Your task to perform on an android device: Go to eBay Image 0: 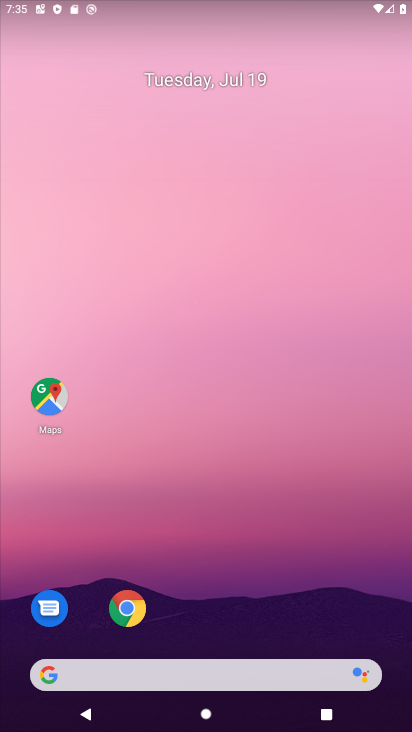
Step 0: click (126, 609)
Your task to perform on an android device: Go to eBay Image 1: 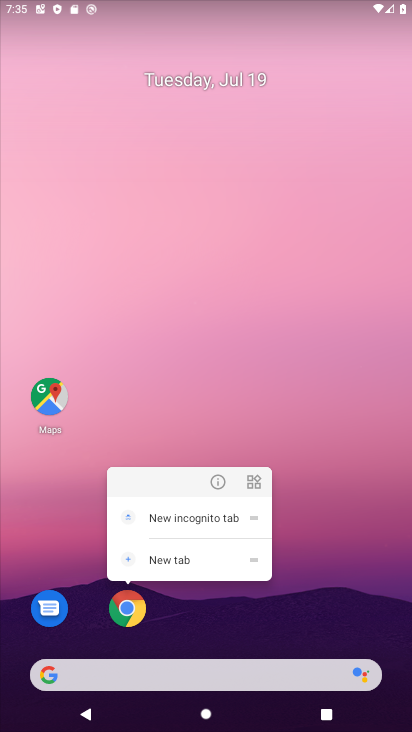
Step 1: click (124, 619)
Your task to perform on an android device: Go to eBay Image 2: 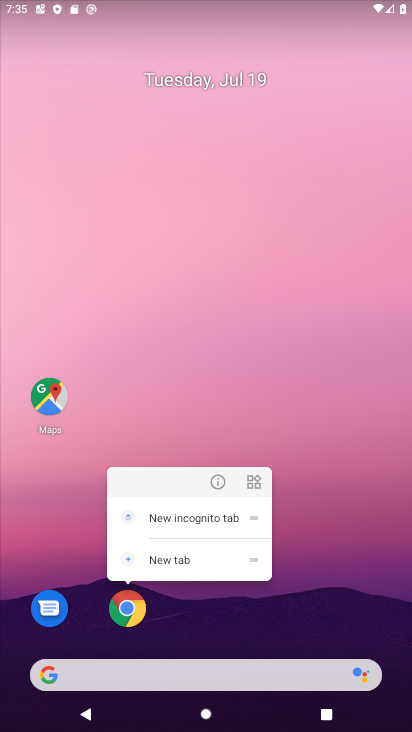
Step 2: click (127, 615)
Your task to perform on an android device: Go to eBay Image 3: 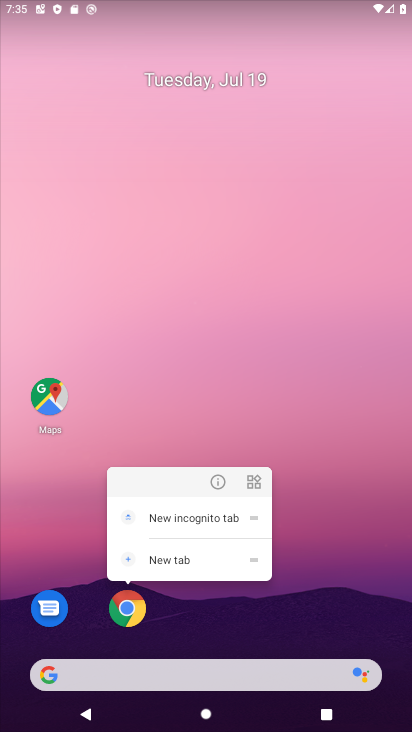
Step 3: click (127, 615)
Your task to perform on an android device: Go to eBay Image 4: 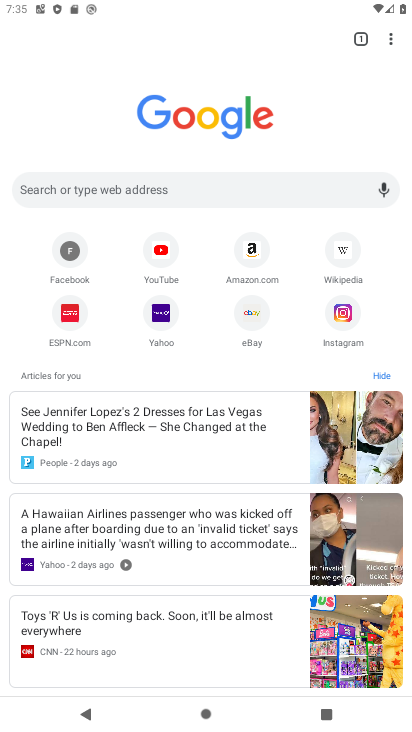
Step 4: click (247, 311)
Your task to perform on an android device: Go to eBay Image 5: 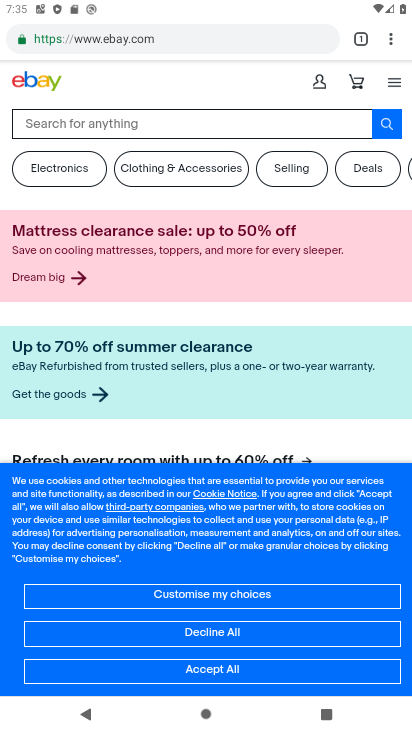
Step 5: click (215, 664)
Your task to perform on an android device: Go to eBay Image 6: 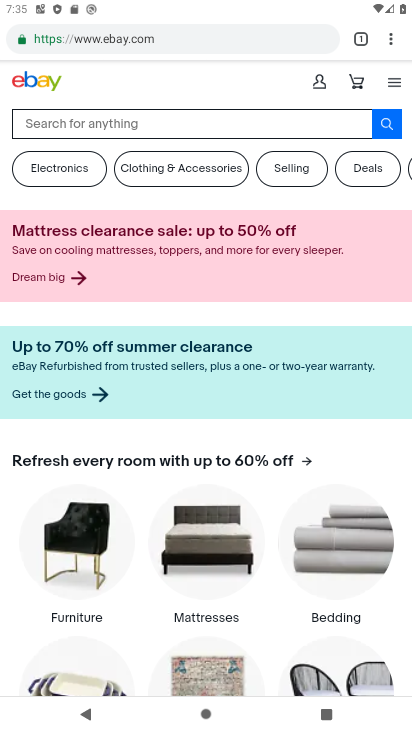
Step 6: task complete